Your task to perform on an android device: move a message to another label in the gmail app Image 0: 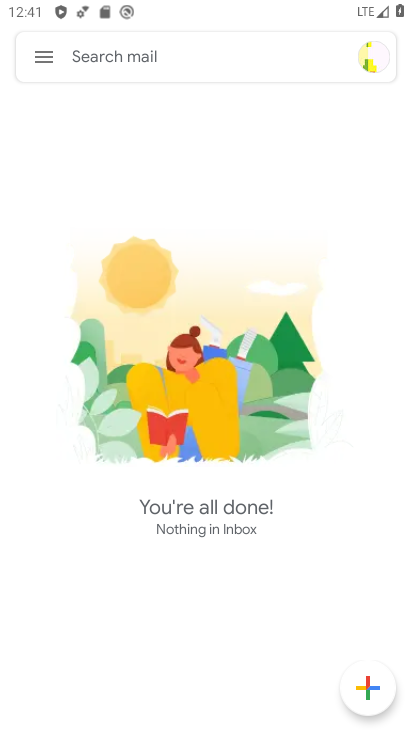
Step 0: press home button
Your task to perform on an android device: move a message to another label in the gmail app Image 1: 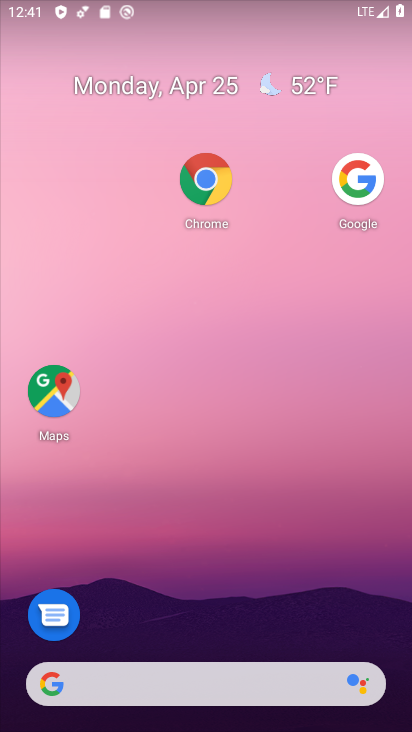
Step 1: drag from (152, 672) to (285, 204)
Your task to perform on an android device: move a message to another label in the gmail app Image 2: 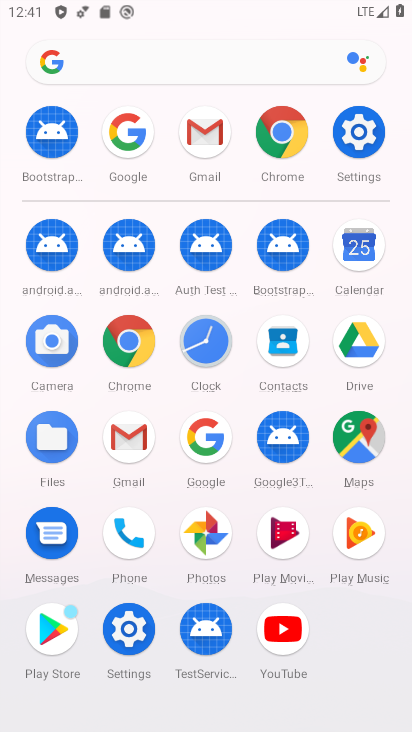
Step 2: click (201, 140)
Your task to perform on an android device: move a message to another label in the gmail app Image 3: 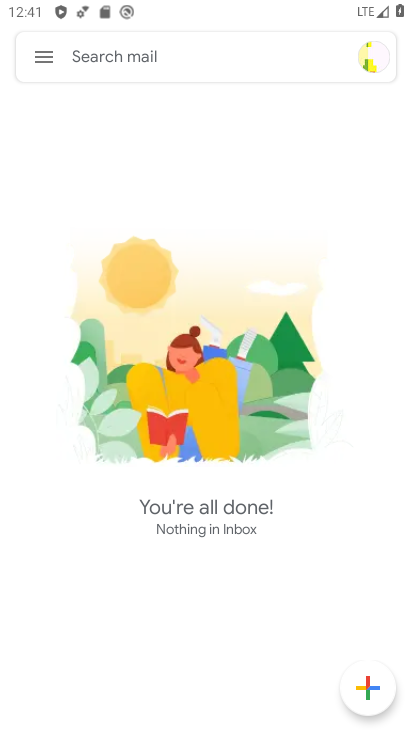
Step 3: task complete